Your task to perform on an android device: Check the news Image 0: 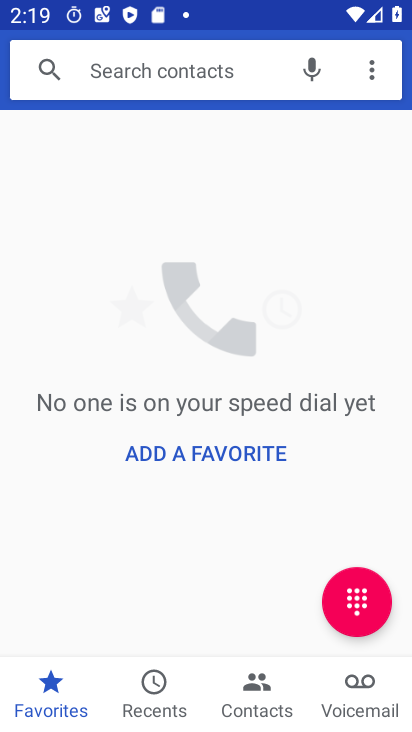
Step 0: press home button
Your task to perform on an android device: Check the news Image 1: 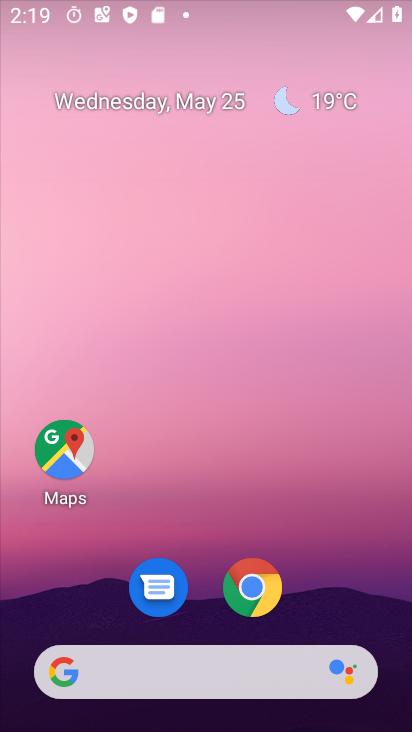
Step 1: drag from (196, 572) to (254, 111)
Your task to perform on an android device: Check the news Image 2: 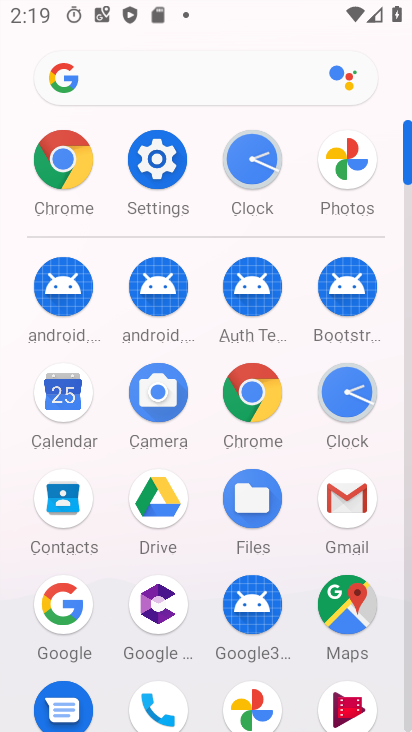
Step 2: click (75, 602)
Your task to perform on an android device: Check the news Image 3: 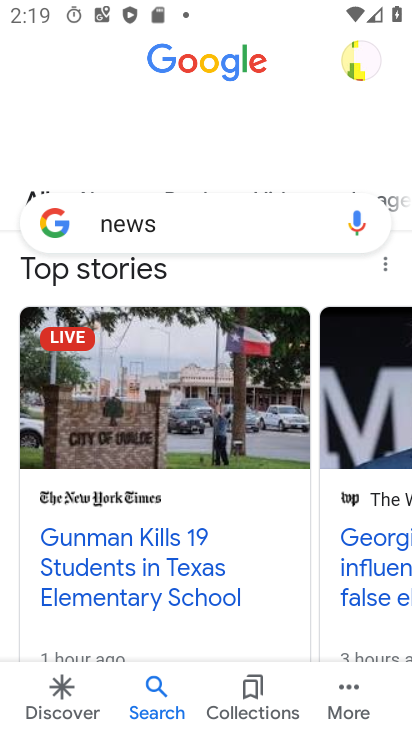
Step 3: click (191, 221)
Your task to perform on an android device: Check the news Image 4: 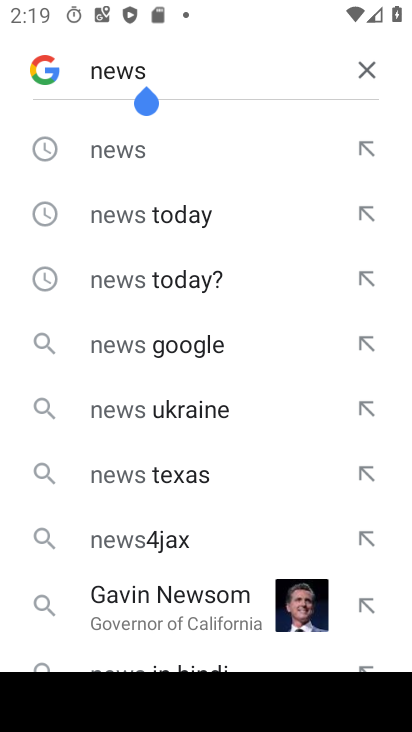
Step 4: click (152, 169)
Your task to perform on an android device: Check the news Image 5: 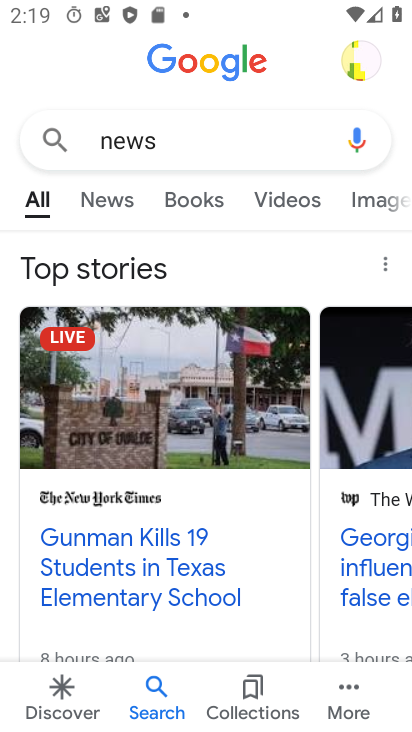
Step 5: task complete